Your task to perform on an android device: Open my contact list Image 0: 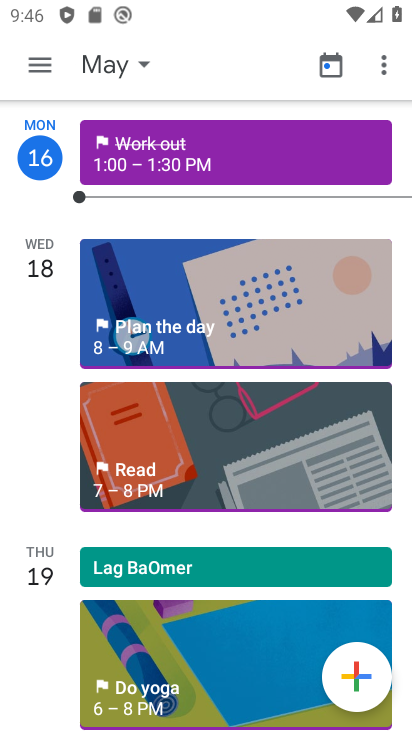
Step 0: press home button
Your task to perform on an android device: Open my contact list Image 1: 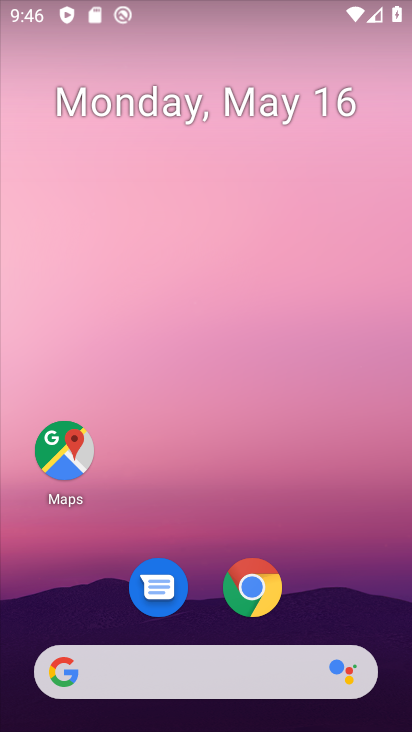
Step 1: drag from (165, 642) to (130, 147)
Your task to perform on an android device: Open my contact list Image 2: 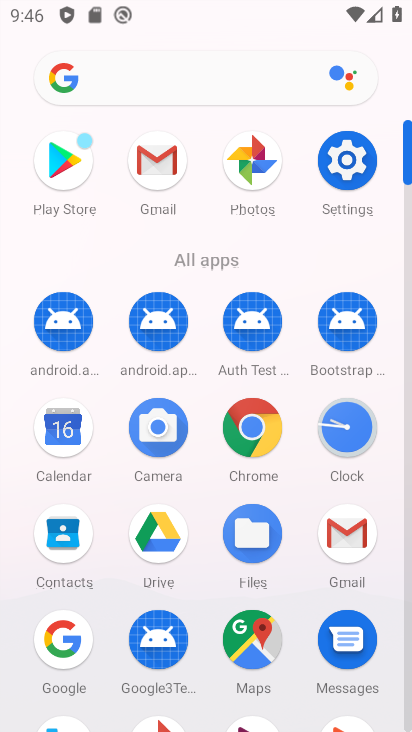
Step 2: drag from (201, 543) to (170, 208)
Your task to perform on an android device: Open my contact list Image 3: 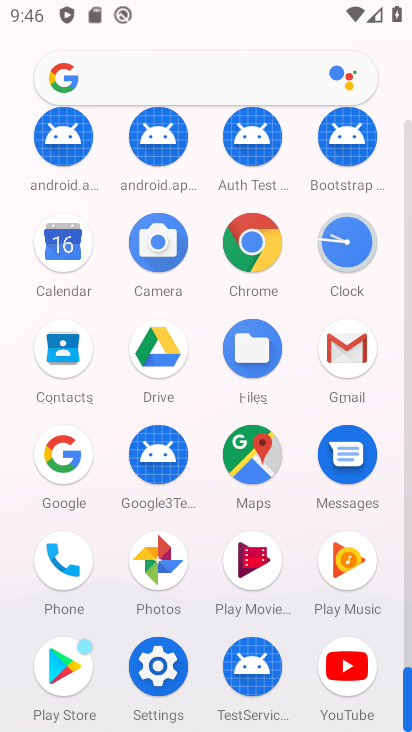
Step 3: click (63, 567)
Your task to perform on an android device: Open my contact list Image 4: 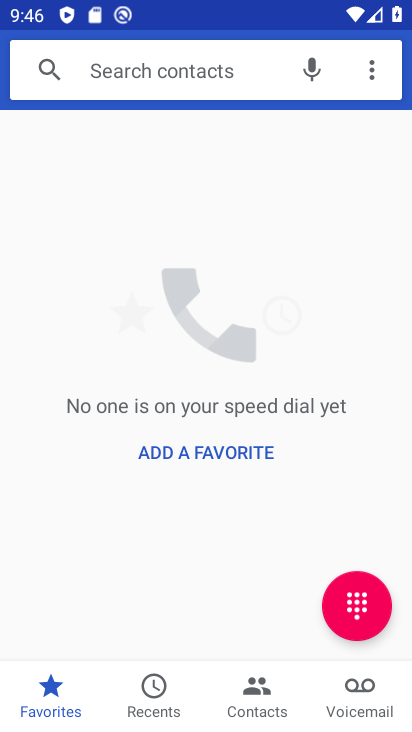
Step 4: click (267, 682)
Your task to perform on an android device: Open my contact list Image 5: 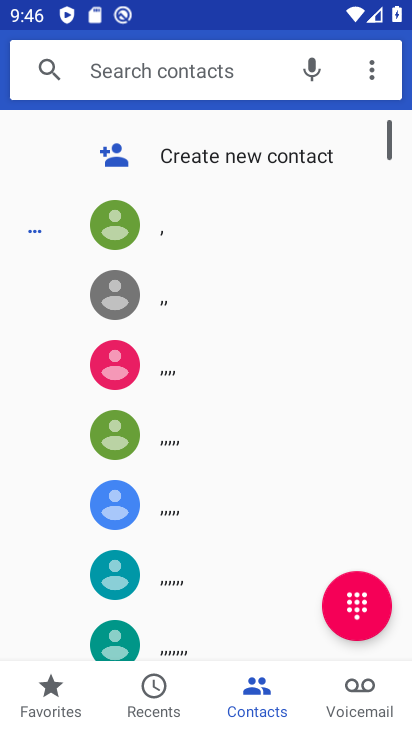
Step 5: task complete